Your task to perform on an android device: install app "Google Chrome" Image 0: 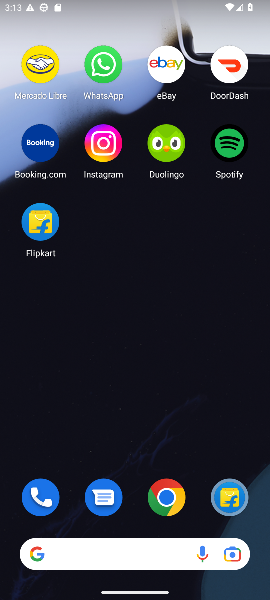
Step 0: drag from (127, 442) to (99, 81)
Your task to perform on an android device: install app "Google Chrome" Image 1: 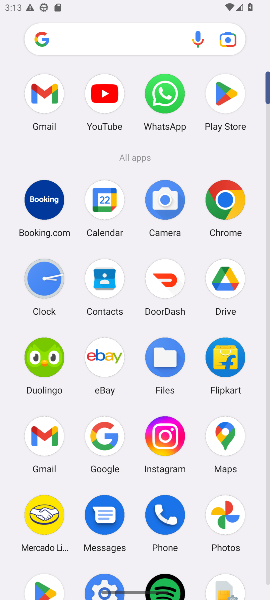
Step 1: click (231, 99)
Your task to perform on an android device: install app "Google Chrome" Image 2: 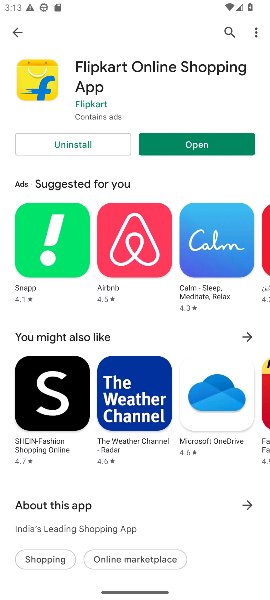
Step 2: click (225, 31)
Your task to perform on an android device: install app "Google Chrome" Image 3: 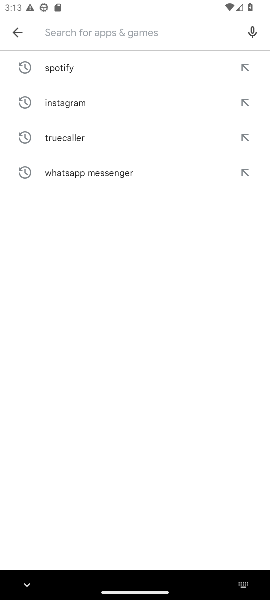
Step 3: type "Google Chrome"
Your task to perform on an android device: install app "Google Chrome" Image 4: 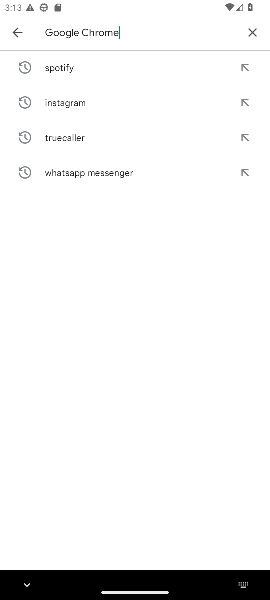
Step 4: type ""
Your task to perform on an android device: install app "Google Chrome" Image 5: 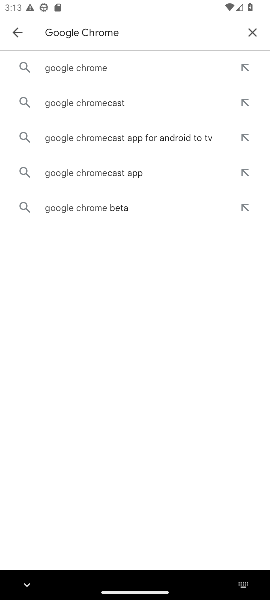
Step 5: click (69, 72)
Your task to perform on an android device: install app "Google Chrome" Image 6: 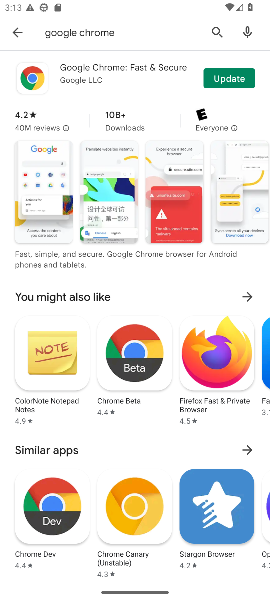
Step 6: click (127, 86)
Your task to perform on an android device: install app "Google Chrome" Image 7: 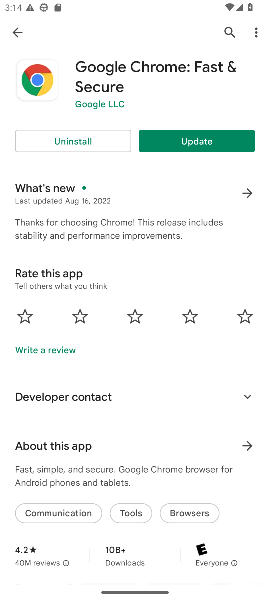
Step 7: task complete